Your task to perform on an android device: open app "DoorDash - Dasher" Image 0: 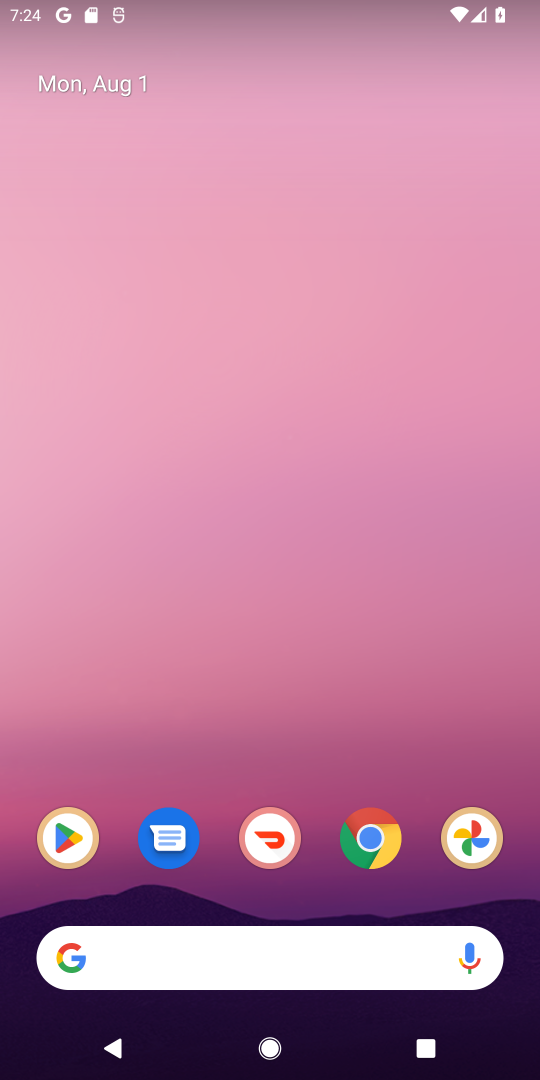
Step 0: drag from (256, 898) to (187, 195)
Your task to perform on an android device: open app "DoorDash - Dasher" Image 1: 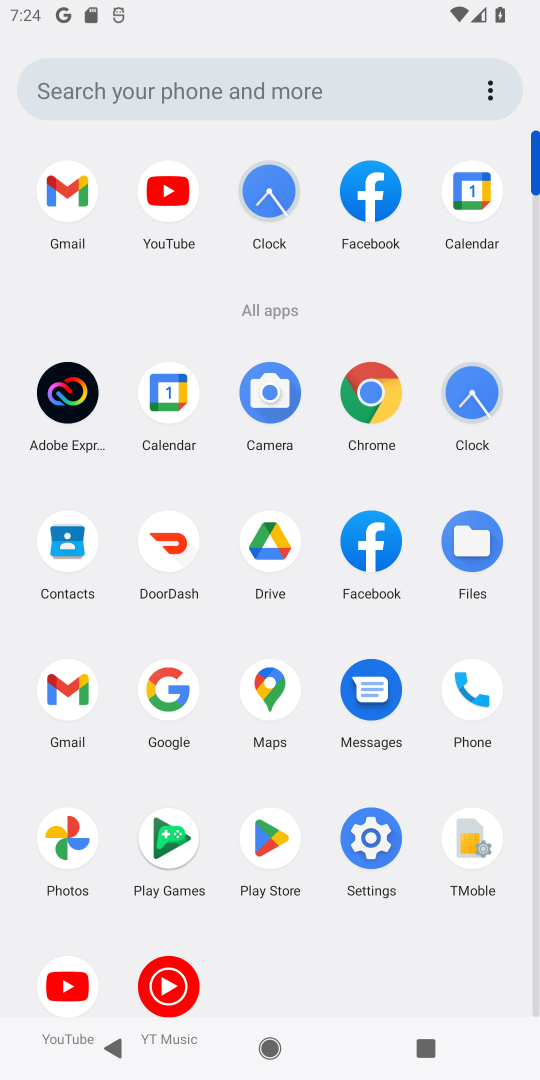
Step 1: click (184, 547)
Your task to perform on an android device: open app "DoorDash - Dasher" Image 2: 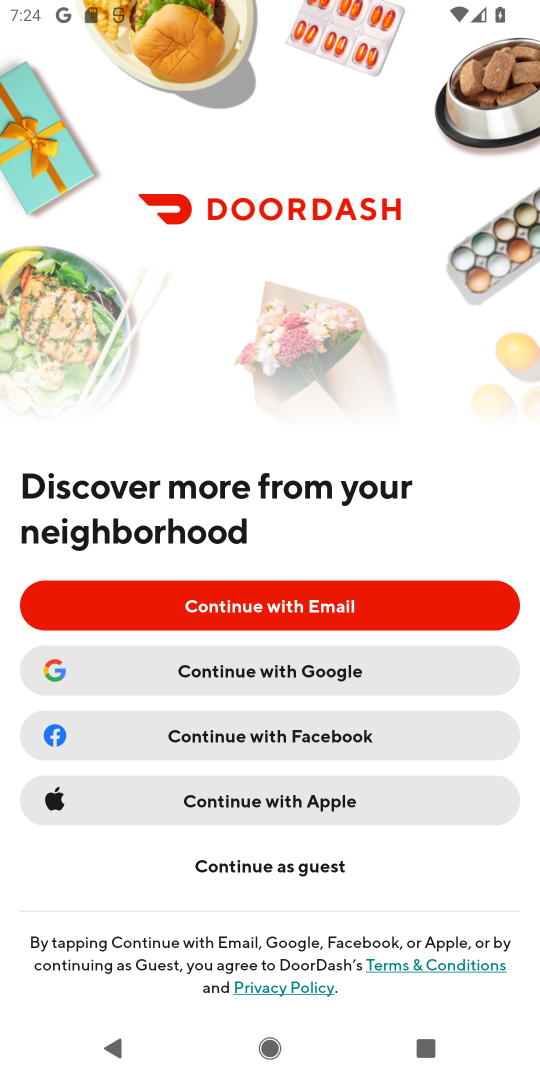
Step 2: task complete